Your task to perform on an android device: open sync settings in chrome Image 0: 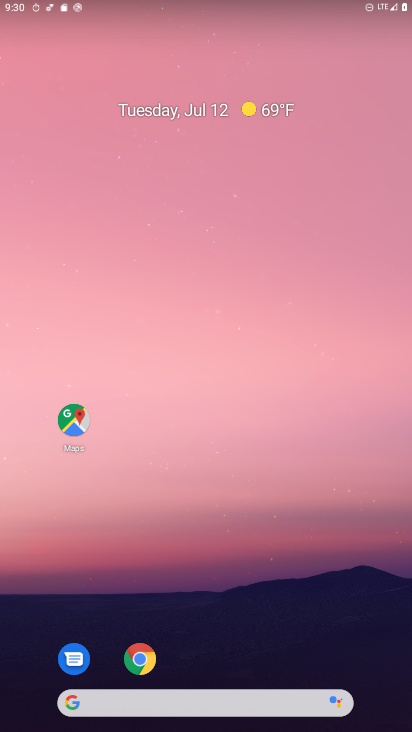
Step 0: click (218, 104)
Your task to perform on an android device: open sync settings in chrome Image 1: 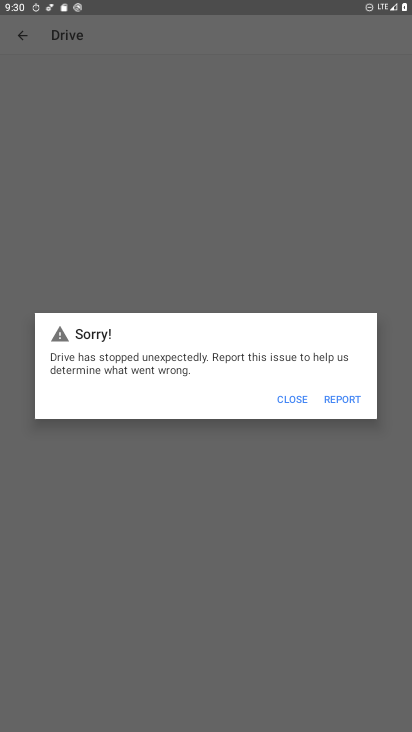
Step 1: press home button
Your task to perform on an android device: open sync settings in chrome Image 2: 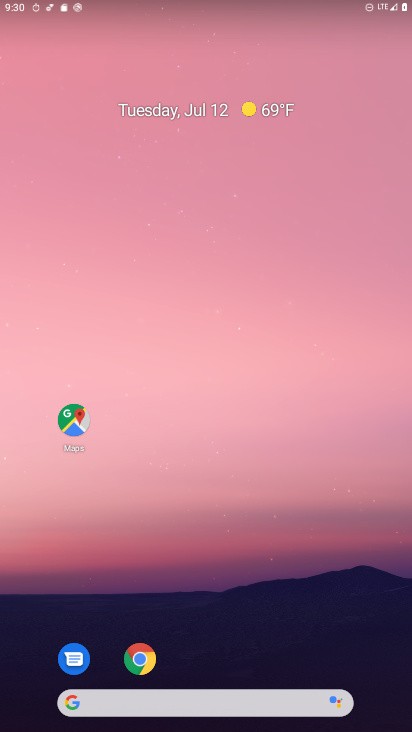
Step 2: click (140, 665)
Your task to perform on an android device: open sync settings in chrome Image 3: 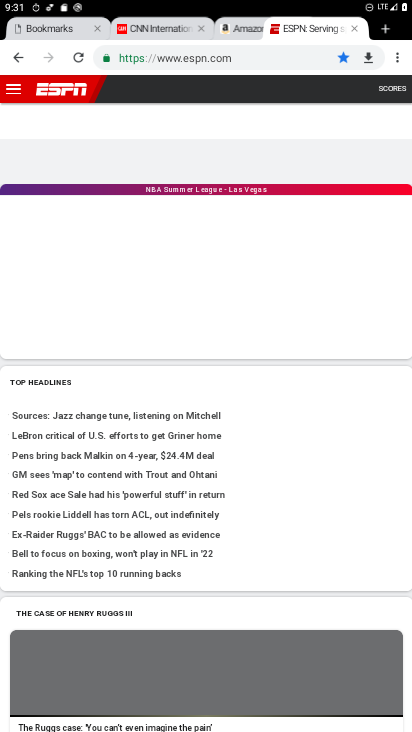
Step 3: click (396, 61)
Your task to perform on an android device: open sync settings in chrome Image 4: 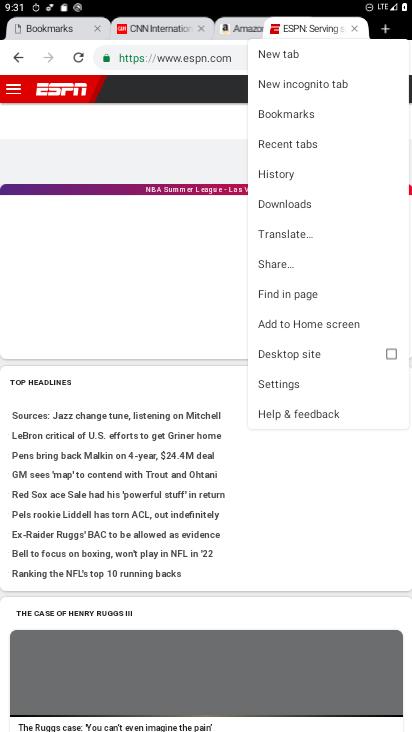
Step 4: click (281, 381)
Your task to perform on an android device: open sync settings in chrome Image 5: 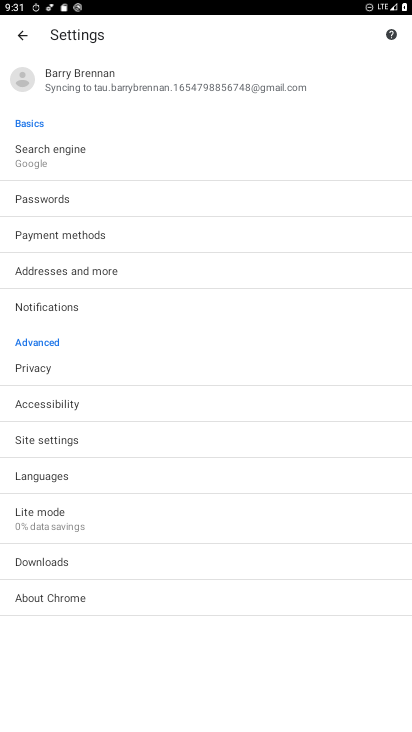
Step 5: click (43, 435)
Your task to perform on an android device: open sync settings in chrome Image 6: 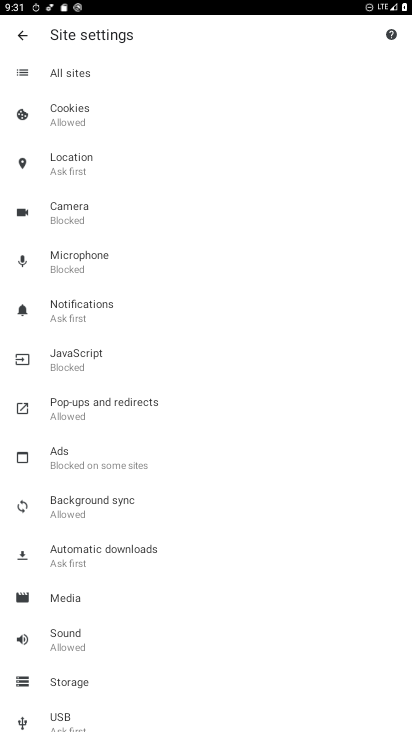
Step 6: click (98, 508)
Your task to perform on an android device: open sync settings in chrome Image 7: 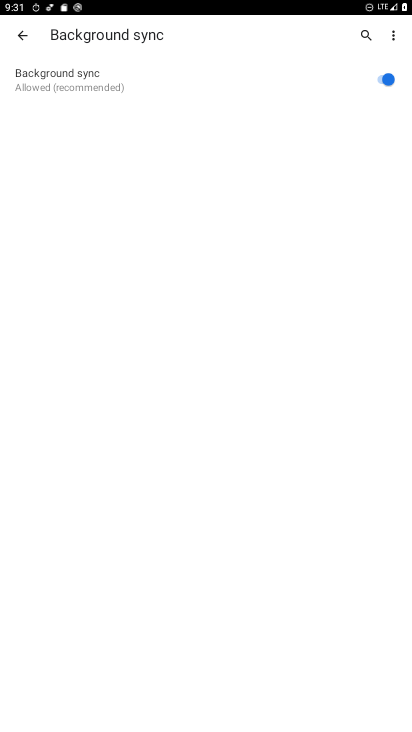
Step 7: task complete